Your task to perform on an android device: Toggle the flashlight Image 0: 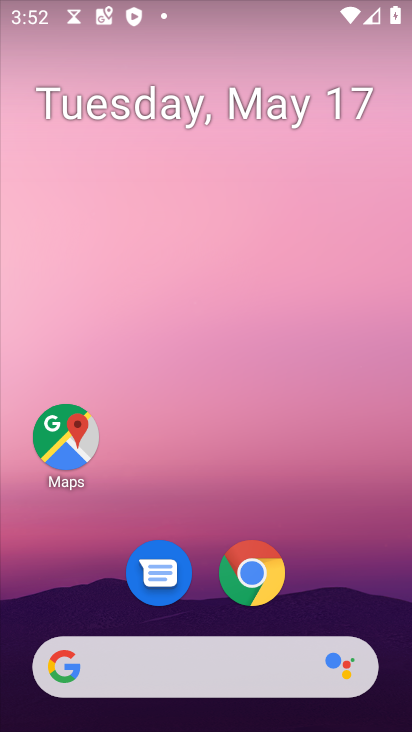
Step 0: drag from (306, 19) to (302, 224)
Your task to perform on an android device: Toggle the flashlight Image 1: 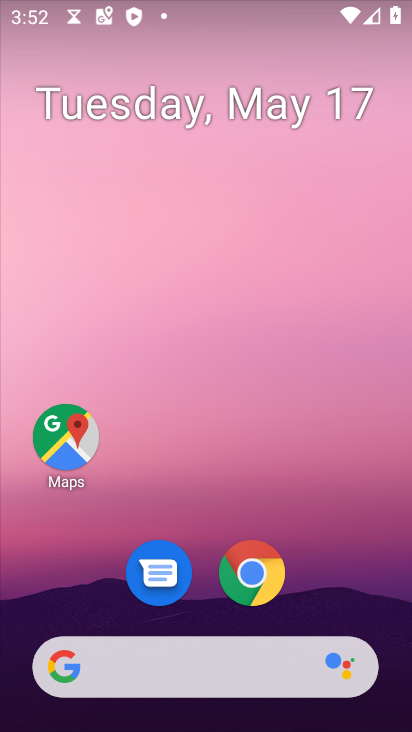
Step 1: drag from (298, 9) to (328, 348)
Your task to perform on an android device: Toggle the flashlight Image 2: 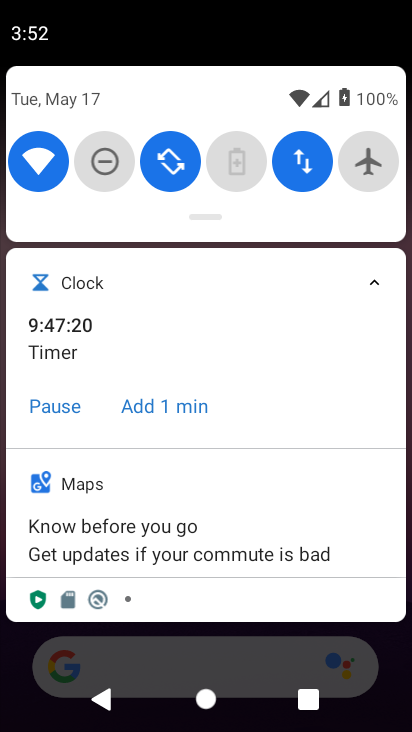
Step 2: drag from (286, 203) to (297, 462)
Your task to perform on an android device: Toggle the flashlight Image 3: 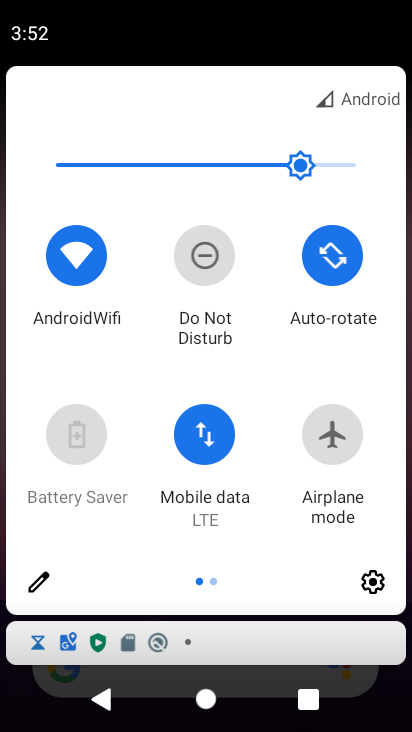
Step 3: click (42, 565)
Your task to perform on an android device: Toggle the flashlight Image 4: 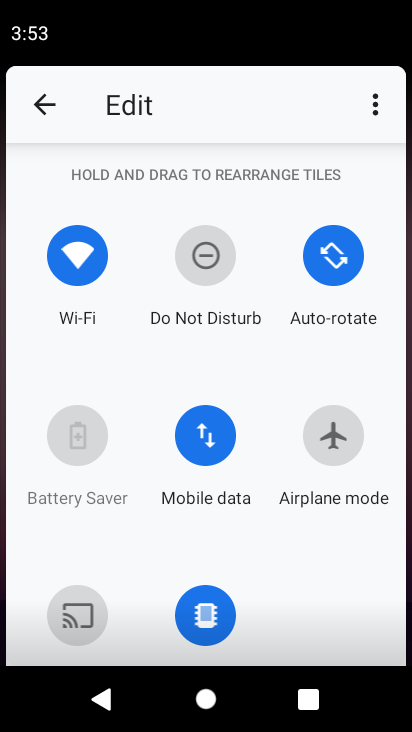
Step 4: task complete